Your task to perform on an android device: Open battery settings Image 0: 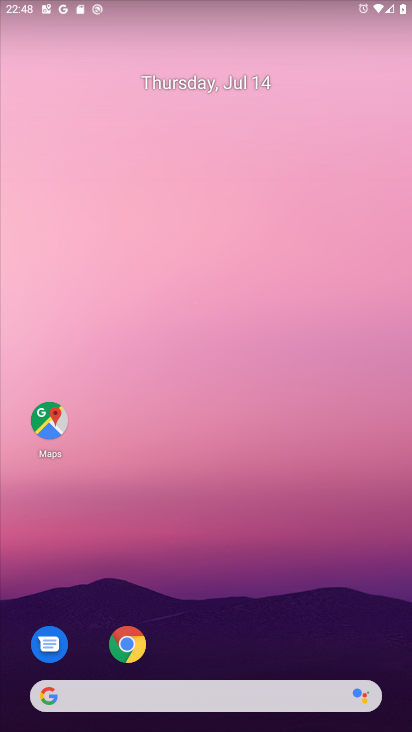
Step 0: drag from (196, 255) to (164, 553)
Your task to perform on an android device: Open battery settings Image 1: 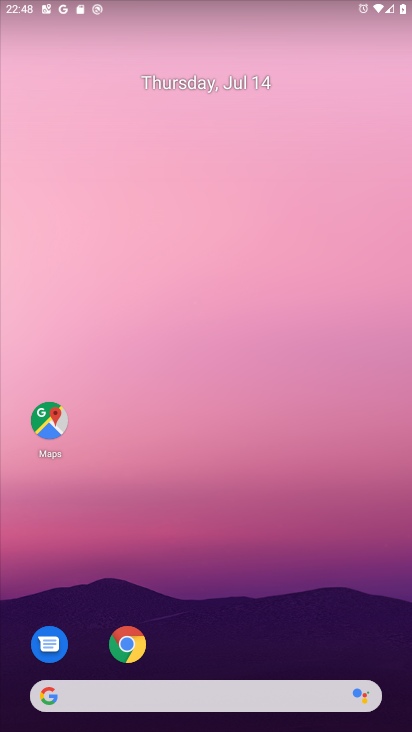
Step 1: drag from (267, 3) to (347, 554)
Your task to perform on an android device: Open battery settings Image 2: 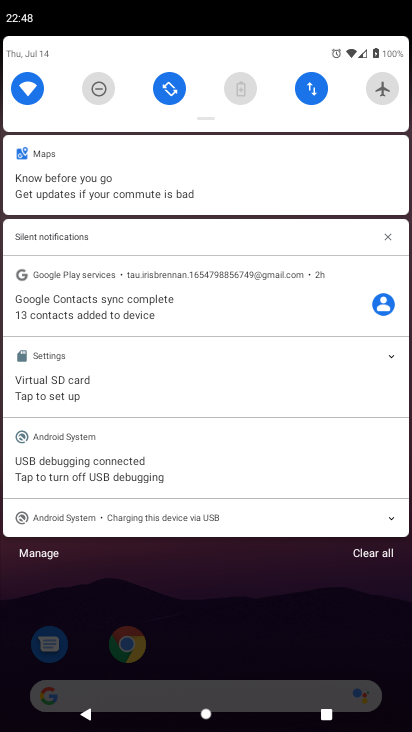
Step 2: click (248, 84)
Your task to perform on an android device: Open battery settings Image 3: 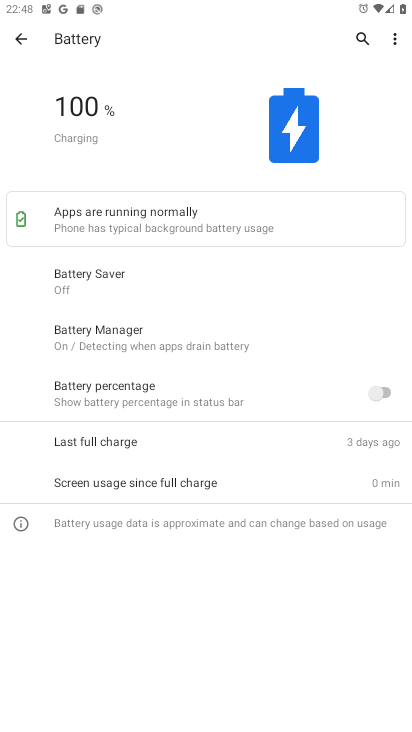
Step 3: task complete